Your task to perform on an android device: Show me productivity apps on the Play Store Image 0: 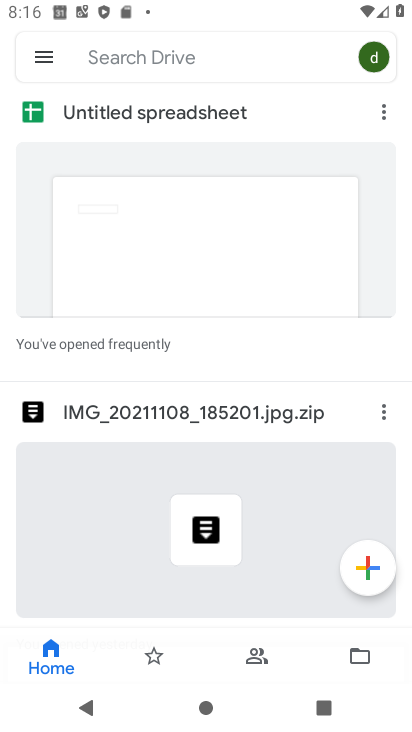
Step 0: press home button
Your task to perform on an android device: Show me productivity apps on the Play Store Image 1: 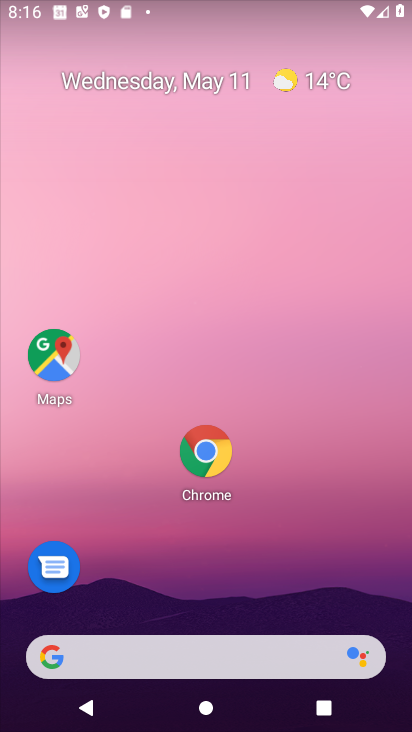
Step 1: drag from (165, 637) to (247, 234)
Your task to perform on an android device: Show me productivity apps on the Play Store Image 2: 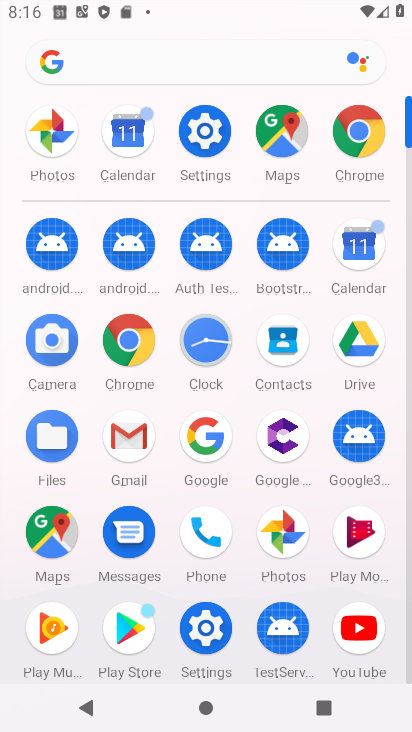
Step 2: click (132, 630)
Your task to perform on an android device: Show me productivity apps on the Play Store Image 3: 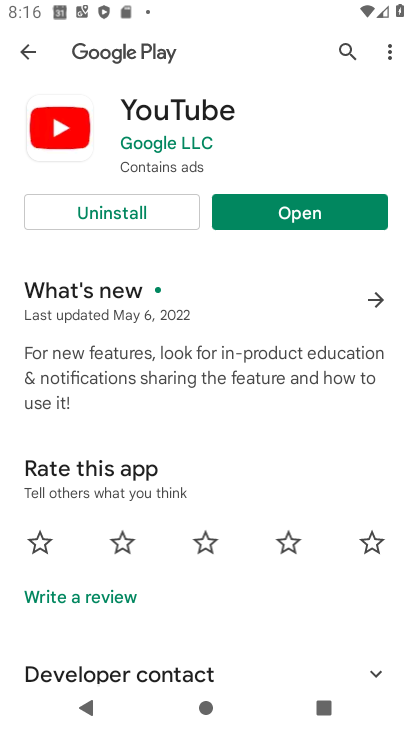
Step 3: click (25, 51)
Your task to perform on an android device: Show me productivity apps on the Play Store Image 4: 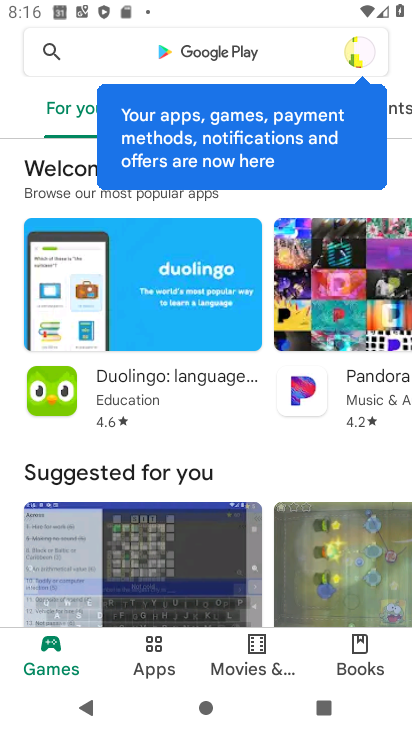
Step 4: click (155, 660)
Your task to perform on an android device: Show me productivity apps on the Play Store Image 5: 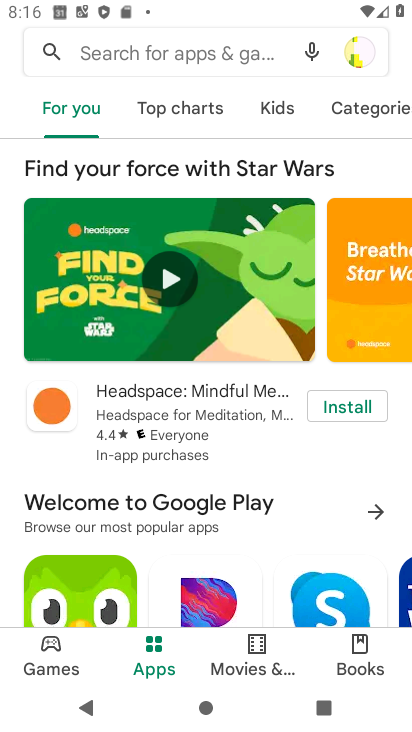
Step 5: click (356, 101)
Your task to perform on an android device: Show me productivity apps on the Play Store Image 6: 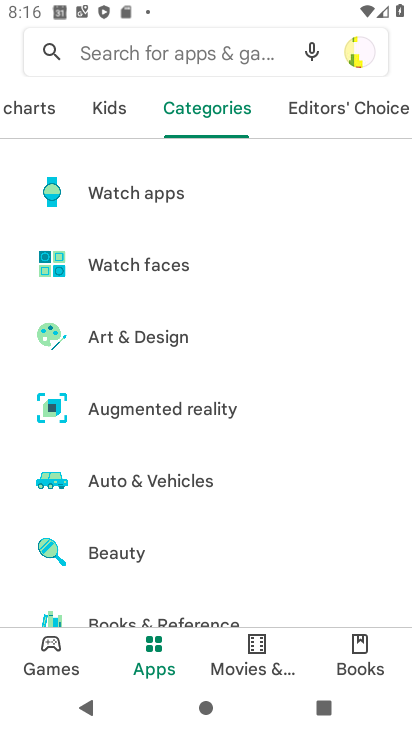
Step 6: drag from (166, 583) to (296, 199)
Your task to perform on an android device: Show me productivity apps on the Play Store Image 7: 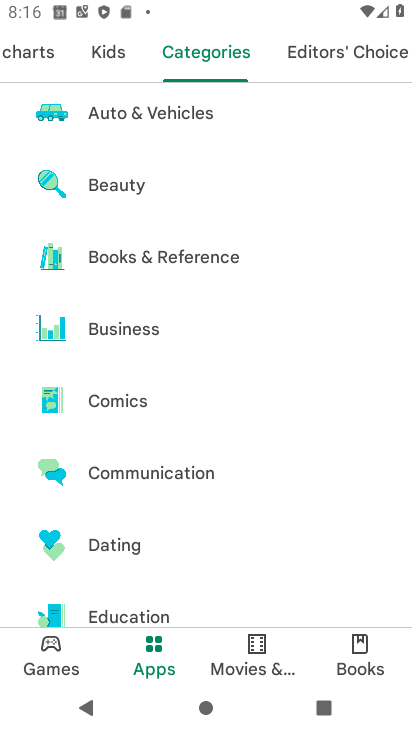
Step 7: drag from (183, 544) to (287, 163)
Your task to perform on an android device: Show me productivity apps on the Play Store Image 8: 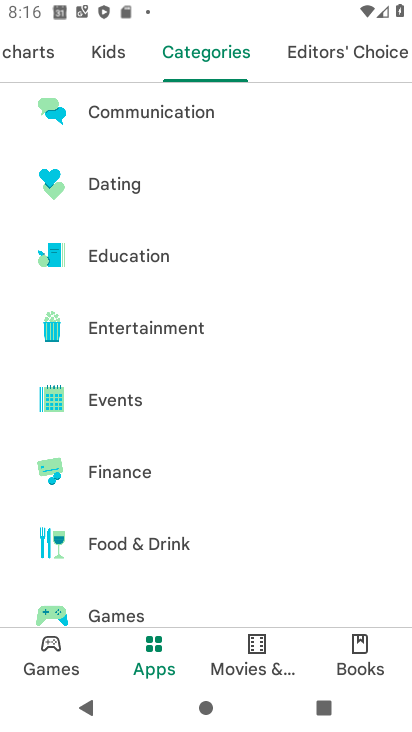
Step 8: drag from (176, 555) to (366, 50)
Your task to perform on an android device: Show me productivity apps on the Play Store Image 9: 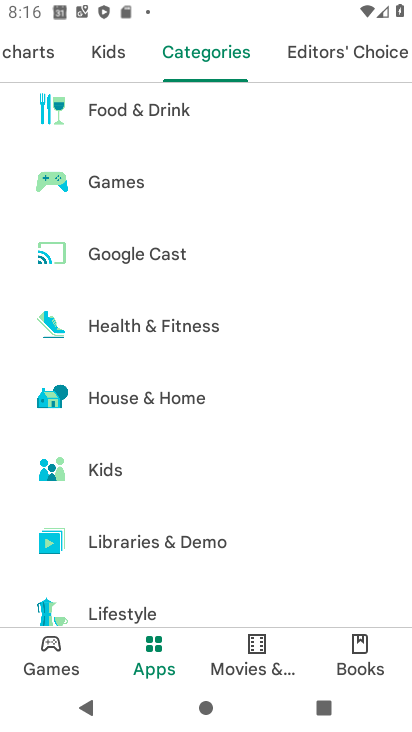
Step 9: drag from (219, 496) to (386, 27)
Your task to perform on an android device: Show me productivity apps on the Play Store Image 10: 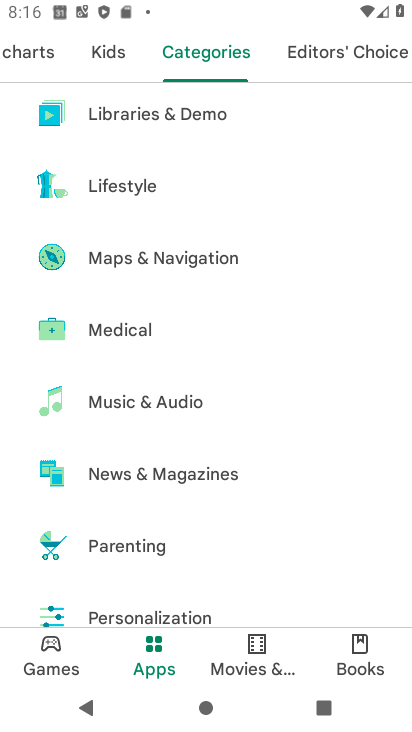
Step 10: drag from (236, 564) to (380, 12)
Your task to perform on an android device: Show me productivity apps on the Play Store Image 11: 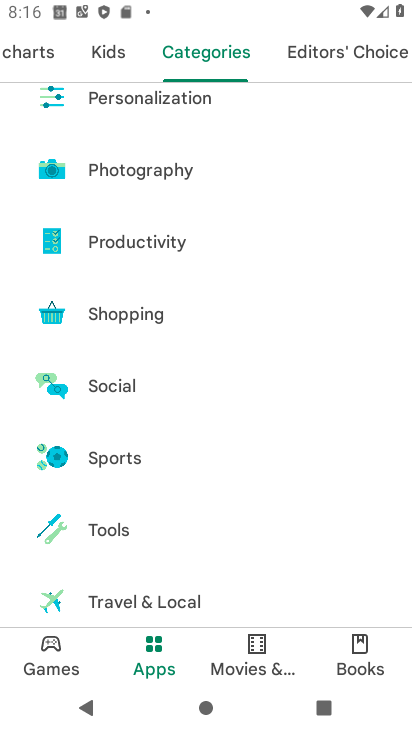
Step 11: click (153, 236)
Your task to perform on an android device: Show me productivity apps on the Play Store Image 12: 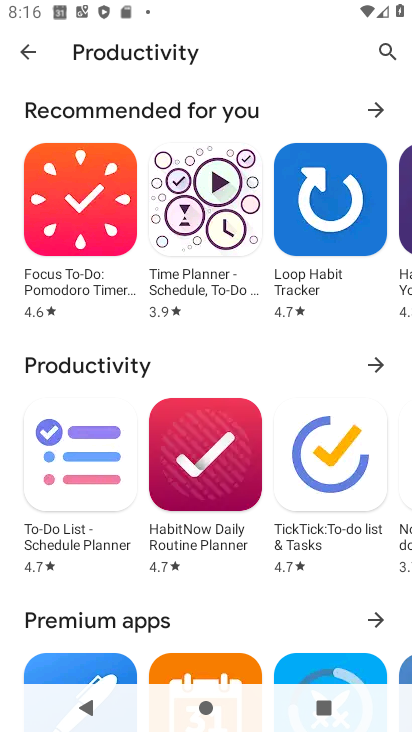
Step 12: task complete